Your task to perform on an android device: Open Google Chrome and click the shortcut for Amazon.com Image 0: 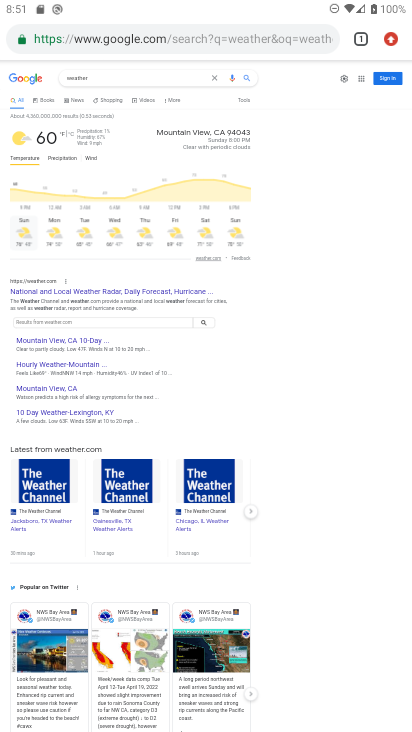
Step 0: click (353, 38)
Your task to perform on an android device: Open Google Chrome and click the shortcut for Amazon.com Image 1: 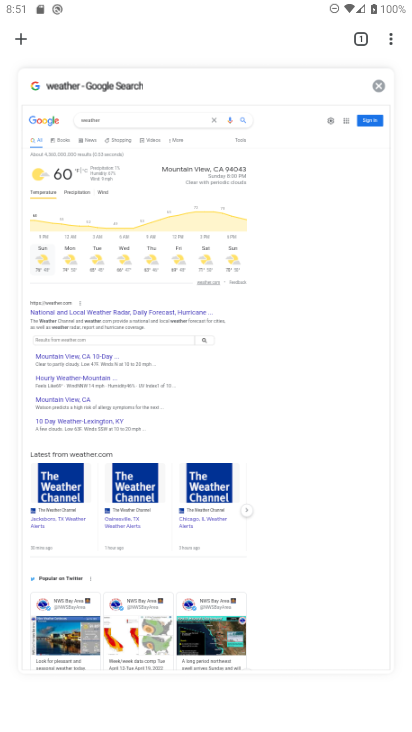
Step 1: click (16, 41)
Your task to perform on an android device: Open Google Chrome and click the shortcut for Amazon.com Image 2: 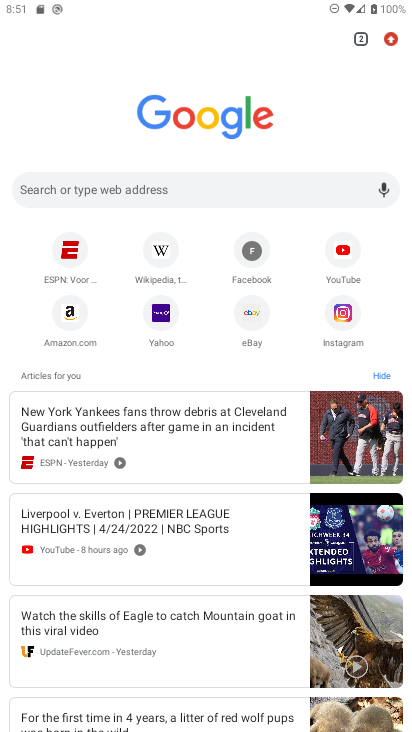
Step 2: click (63, 305)
Your task to perform on an android device: Open Google Chrome and click the shortcut for Amazon.com Image 3: 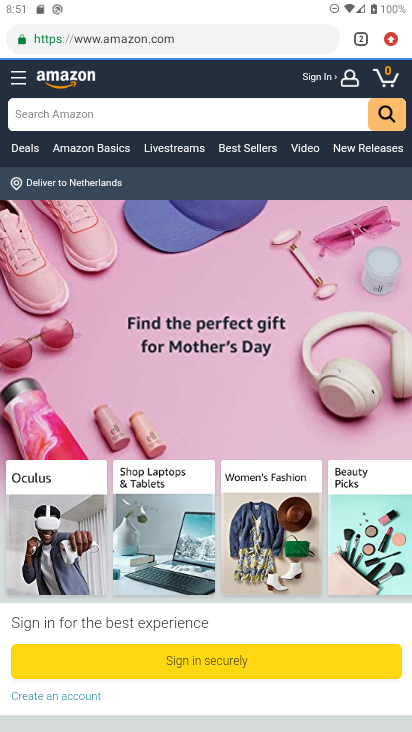
Step 3: task complete